Your task to perform on an android device: Go to settings Image 0: 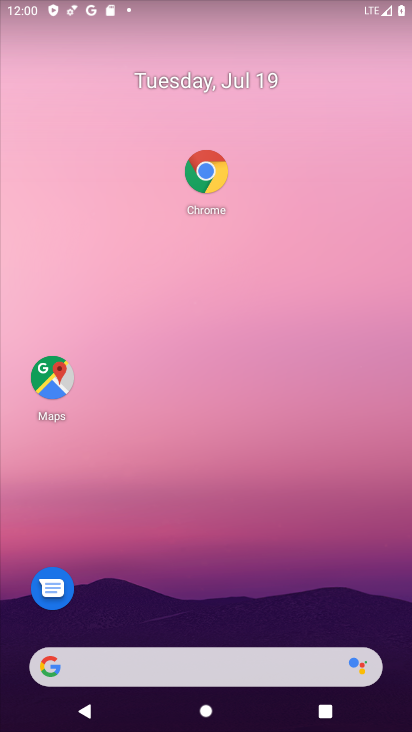
Step 0: drag from (147, 627) to (185, 125)
Your task to perform on an android device: Go to settings Image 1: 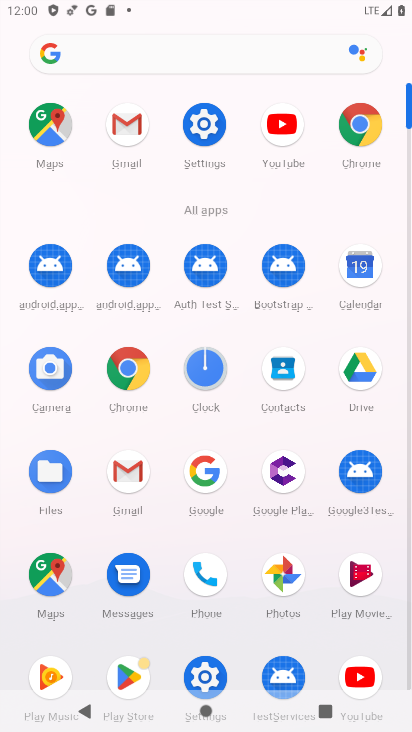
Step 1: click (211, 135)
Your task to perform on an android device: Go to settings Image 2: 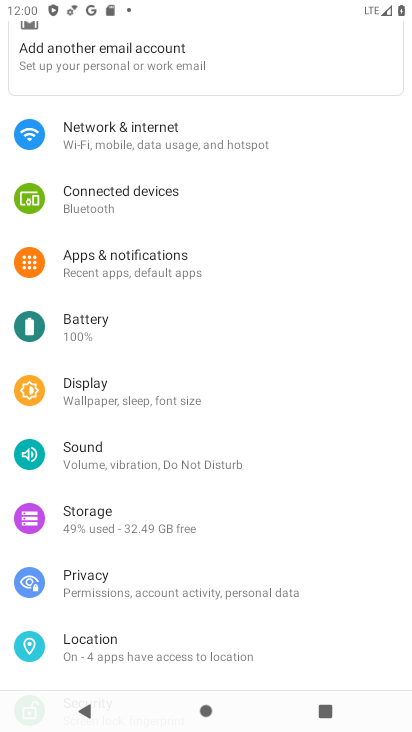
Step 2: task complete